Your task to perform on an android device: Clear the shopping cart on amazon.com. Image 0: 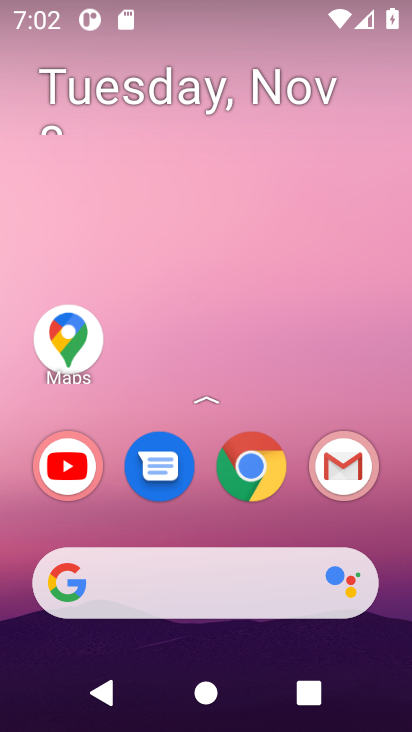
Step 0: click (255, 474)
Your task to perform on an android device: Clear the shopping cart on amazon.com. Image 1: 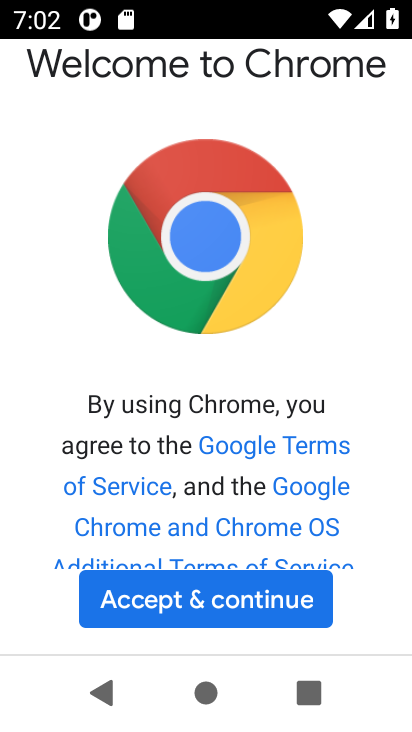
Step 1: click (197, 599)
Your task to perform on an android device: Clear the shopping cart on amazon.com. Image 2: 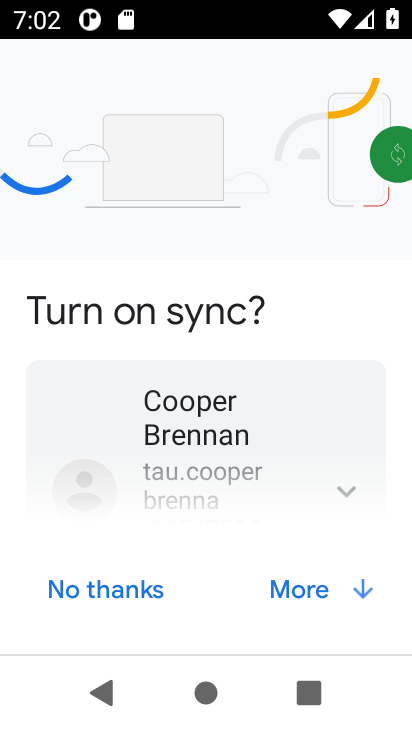
Step 2: drag from (188, 515) to (160, 199)
Your task to perform on an android device: Clear the shopping cart on amazon.com. Image 3: 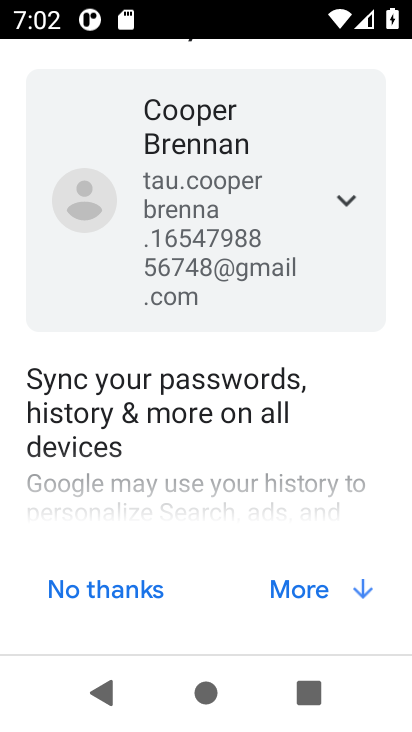
Step 3: drag from (185, 426) to (177, 156)
Your task to perform on an android device: Clear the shopping cart on amazon.com. Image 4: 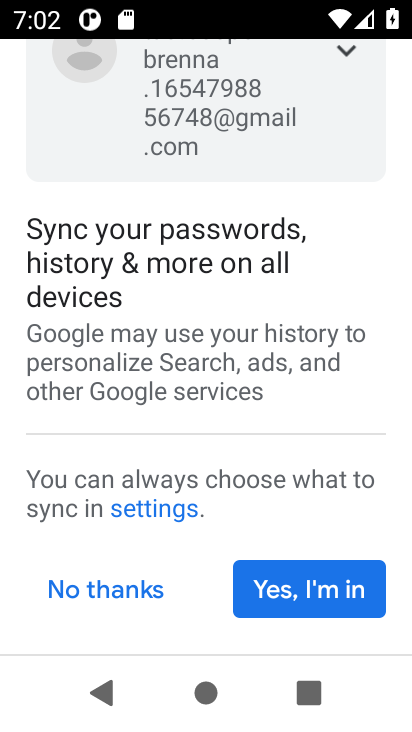
Step 4: click (301, 595)
Your task to perform on an android device: Clear the shopping cart on amazon.com. Image 5: 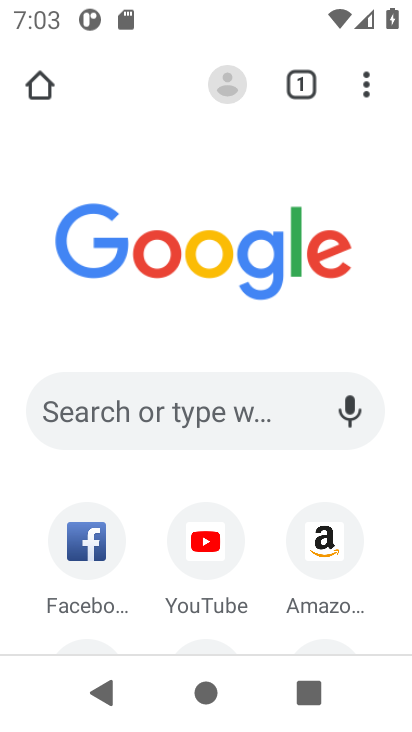
Step 5: click (321, 556)
Your task to perform on an android device: Clear the shopping cart on amazon.com. Image 6: 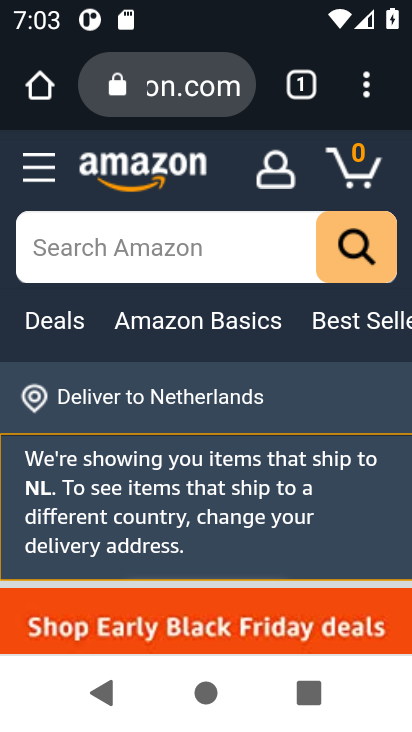
Step 6: click (353, 167)
Your task to perform on an android device: Clear the shopping cart on amazon.com. Image 7: 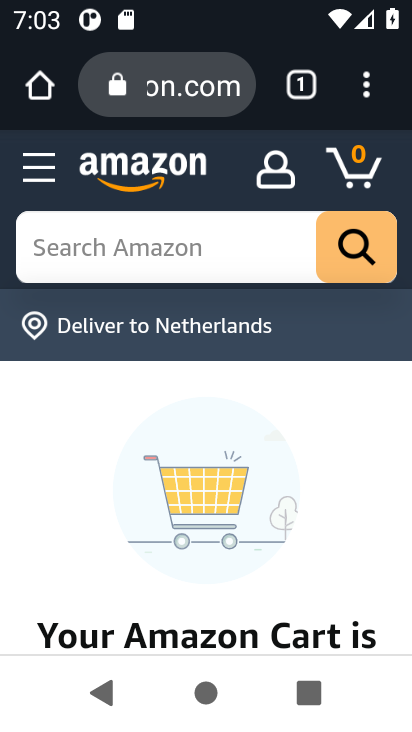
Step 7: task complete